Your task to perform on an android device: Go to Android settings Image 0: 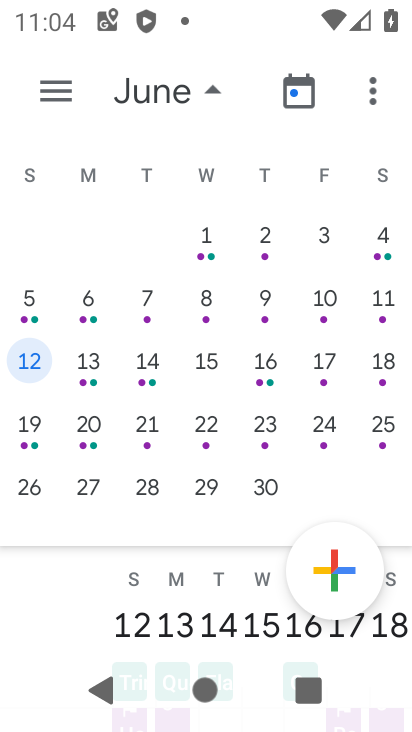
Step 0: press home button
Your task to perform on an android device: Go to Android settings Image 1: 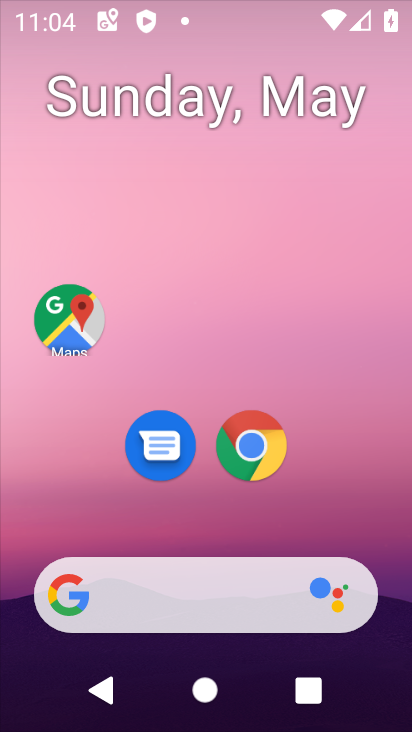
Step 1: drag from (350, 455) to (258, 86)
Your task to perform on an android device: Go to Android settings Image 2: 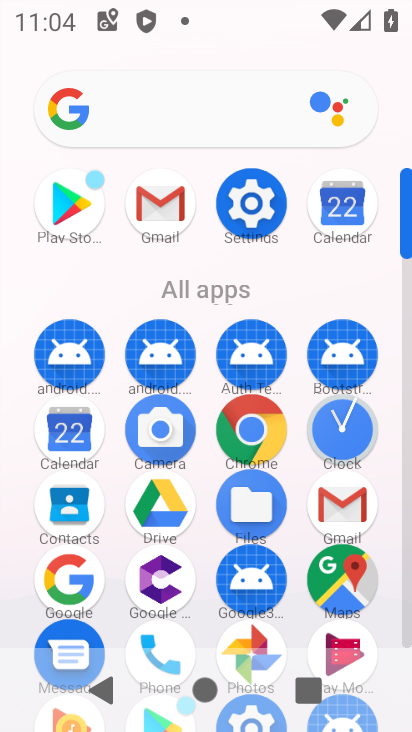
Step 2: click (256, 204)
Your task to perform on an android device: Go to Android settings Image 3: 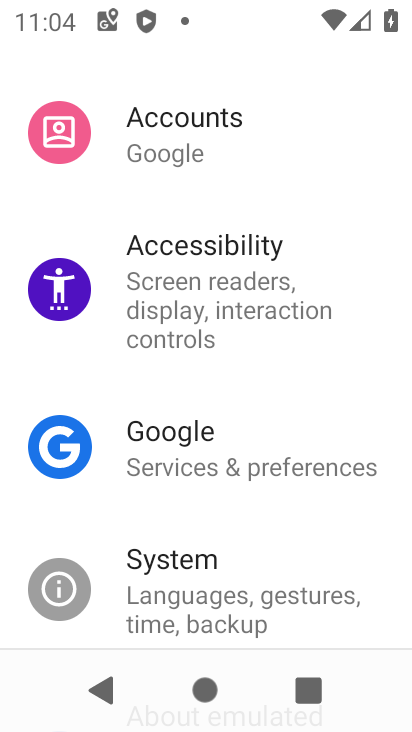
Step 3: drag from (271, 618) to (262, 180)
Your task to perform on an android device: Go to Android settings Image 4: 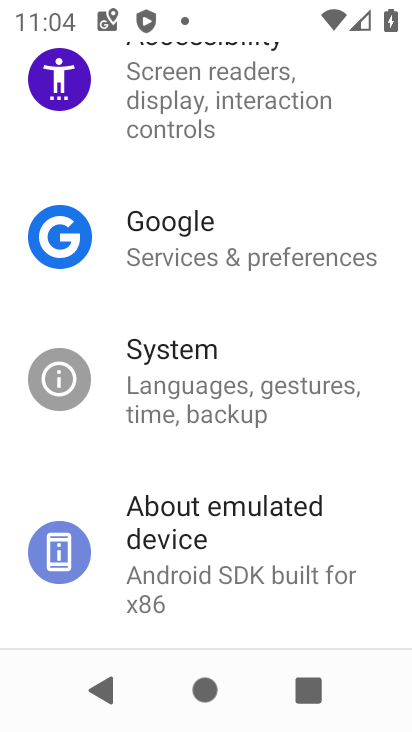
Step 4: click (244, 547)
Your task to perform on an android device: Go to Android settings Image 5: 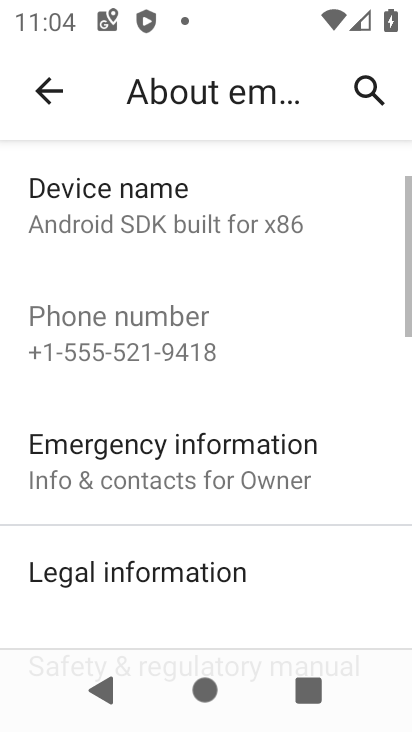
Step 5: drag from (278, 345) to (234, 78)
Your task to perform on an android device: Go to Android settings Image 6: 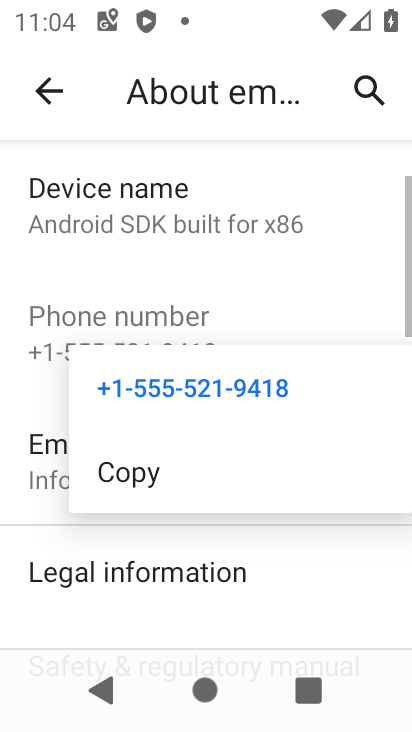
Step 6: drag from (272, 571) to (241, 153)
Your task to perform on an android device: Go to Android settings Image 7: 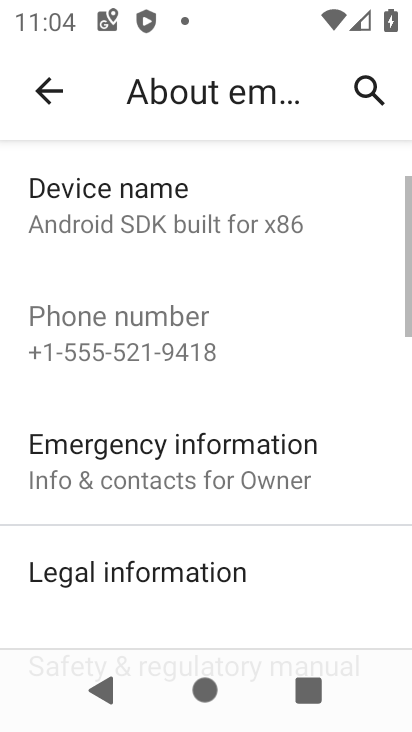
Step 7: drag from (259, 598) to (260, 173)
Your task to perform on an android device: Go to Android settings Image 8: 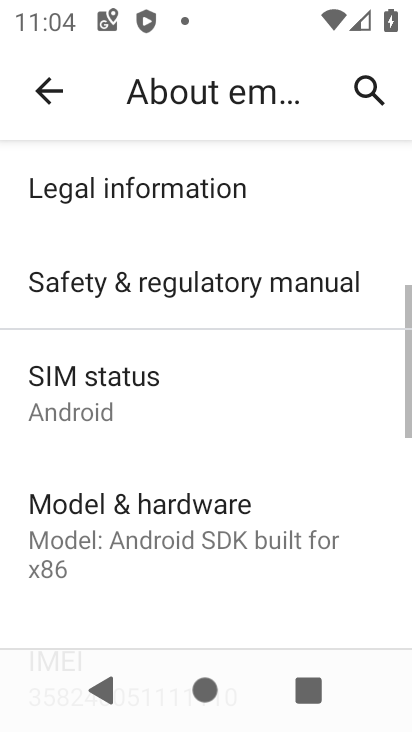
Step 8: drag from (244, 544) to (212, 141)
Your task to perform on an android device: Go to Android settings Image 9: 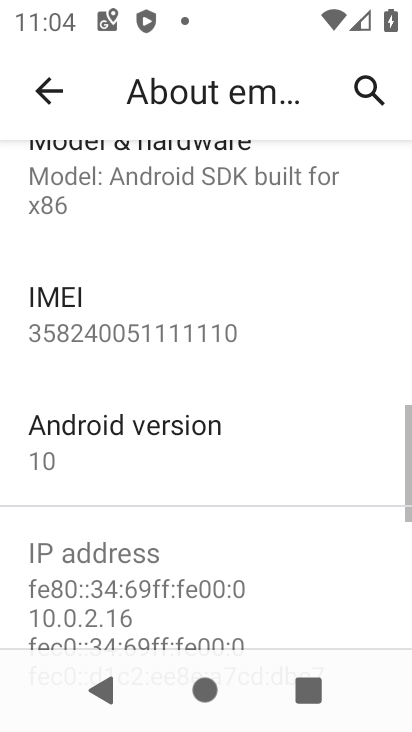
Step 9: click (231, 467)
Your task to perform on an android device: Go to Android settings Image 10: 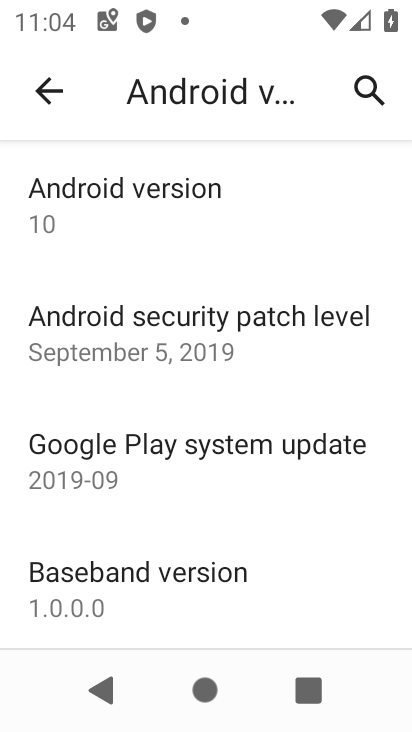
Step 10: task complete